Your task to perform on an android device: toggle notifications settings in the gmail app Image 0: 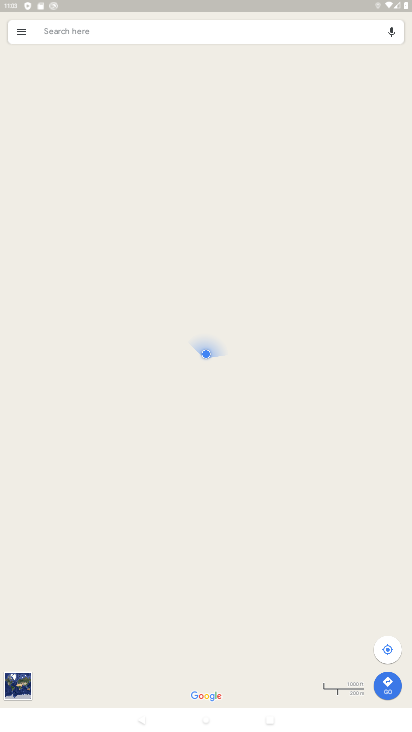
Step 0: press home button
Your task to perform on an android device: toggle notifications settings in the gmail app Image 1: 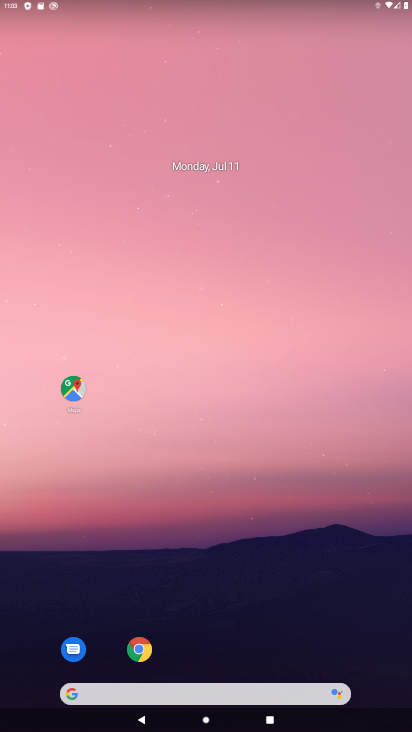
Step 1: drag from (303, 620) to (232, 133)
Your task to perform on an android device: toggle notifications settings in the gmail app Image 2: 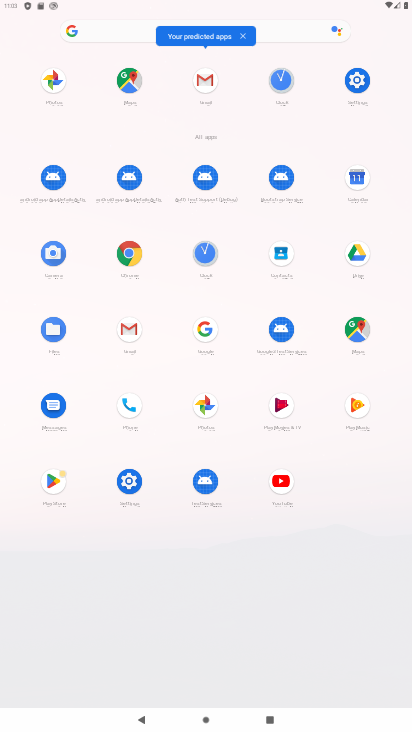
Step 2: click (204, 86)
Your task to perform on an android device: toggle notifications settings in the gmail app Image 3: 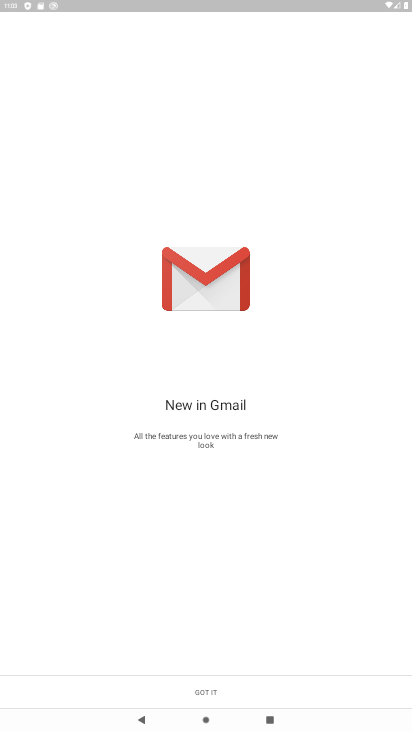
Step 3: click (219, 687)
Your task to perform on an android device: toggle notifications settings in the gmail app Image 4: 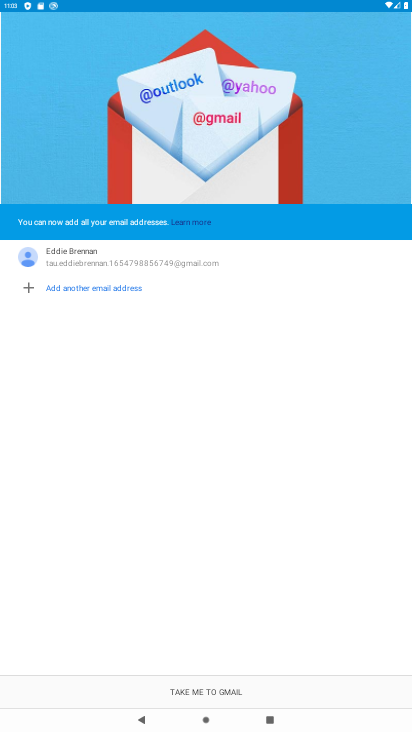
Step 4: click (236, 690)
Your task to perform on an android device: toggle notifications settings in the gmail app Image 5: 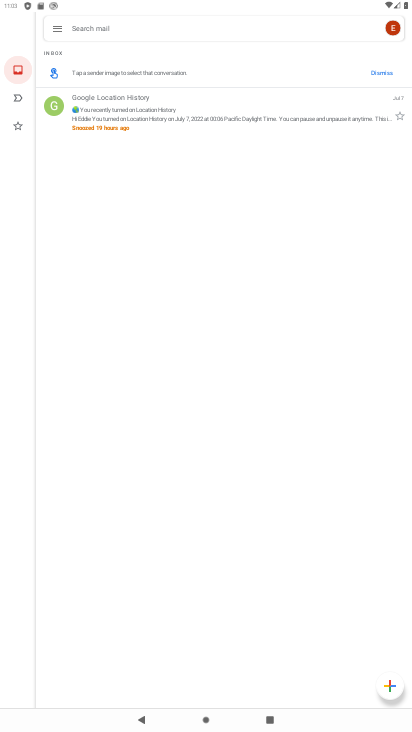
Step 5: click (59, 30)
Your task to perform on an android device: toggle notifications settings in the gmail app Image 6: 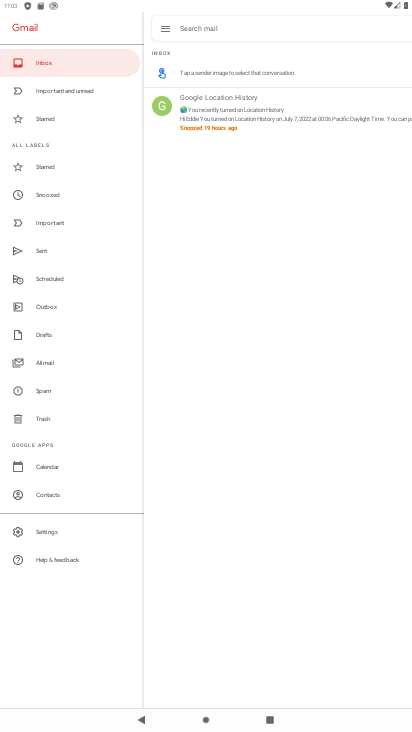
Step 6: drag from (49, 417) to (62, 569)
Your task to perform on an android device: toggle notifications settings in the gmail app Image 7: 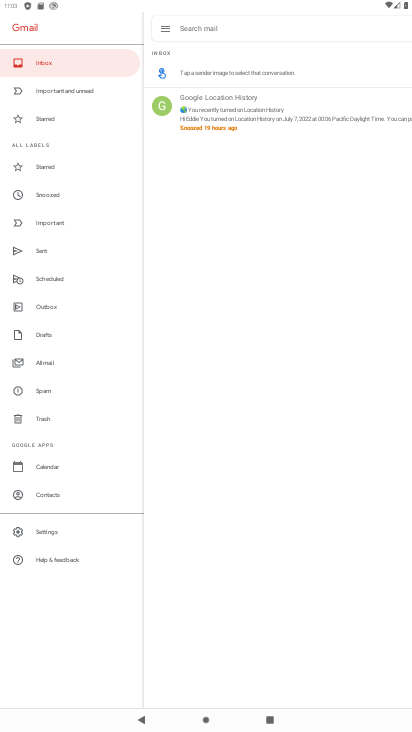
Step 7: click (54, 534)
Your task to perform on an android device: toggle notifications settings in the gmail app Image 8: 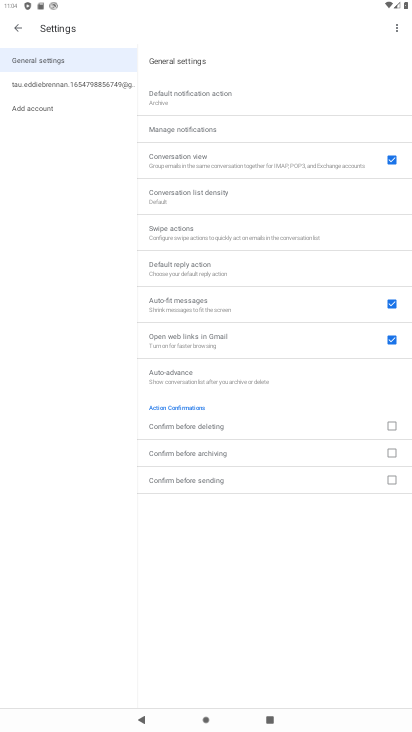
Step 8: drag from (152, 244) to (156, 356)
Your task to perform on an android device: toggle notifications settings in the gmail app Image 9: 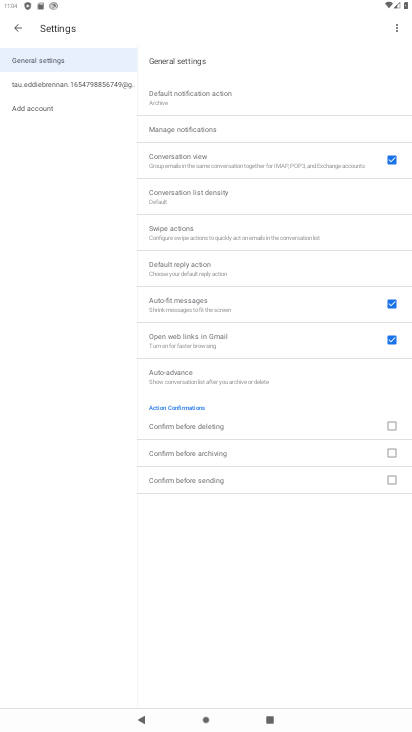
Step 9: click (293, 114)
Your task to perform on an android device: toggle notifications settings in the gmail app Image 10: 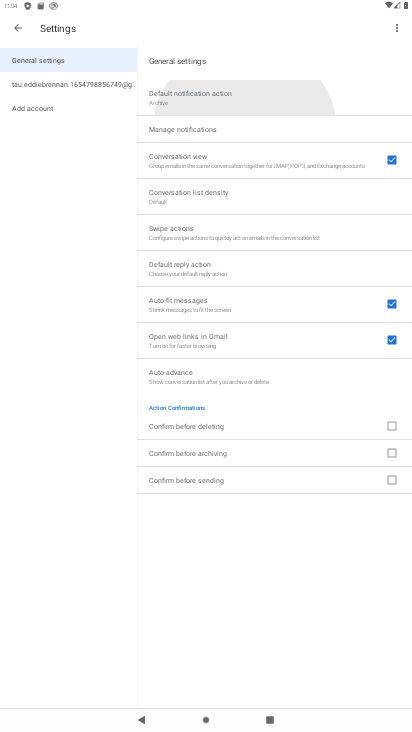
Step 10: click (77, 88)
Your task to perform on an android device: toggle notifications settings in the gmail app Image 11: 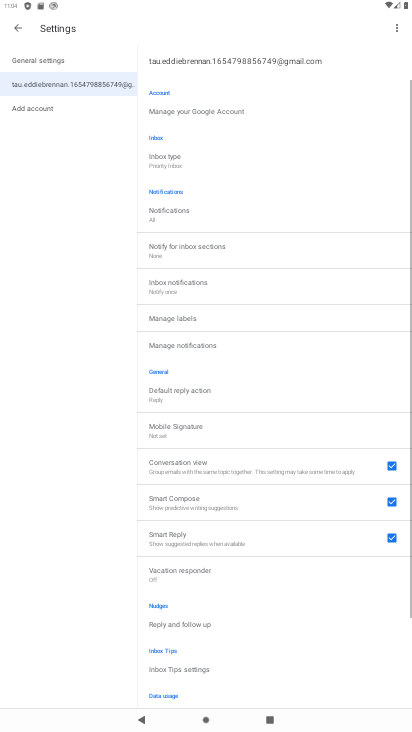
Step 11: drag from (77, 88) to (83, 205)
Your task to perform on an android device: toggle notifications settings in the gmail app Image 12: 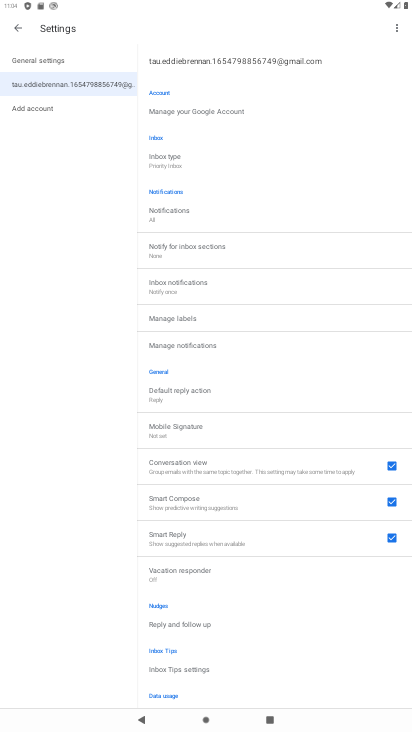
Step 12: click (192, 338)
Your task to perform on an android device: toggle notifications settings in the gmail app Image 13: 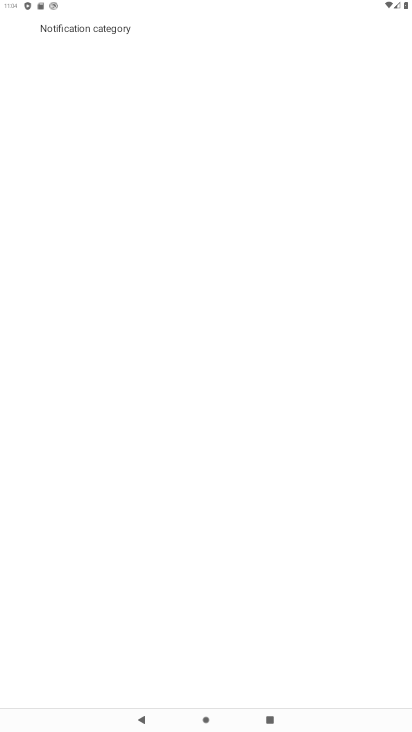
Step 13: drag from (47, 394) to (196, 302)
Your task to perform on an android device: toggle notifications settings in the gmail app Image 14: 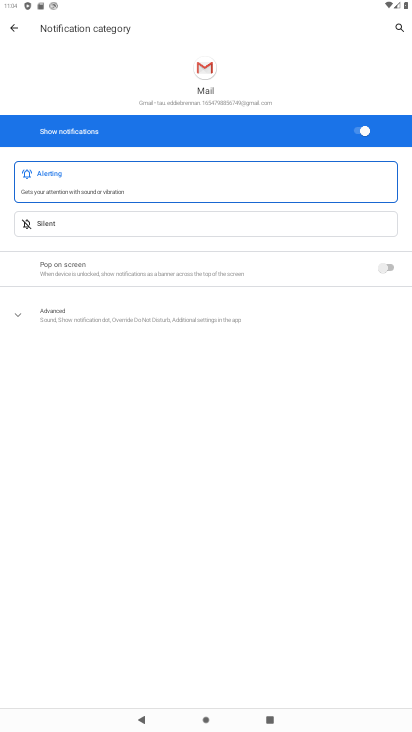
Step 14: click (387, 266)
Your task to perform on an android device: toggle notifications settings in the gmail app Image 15: 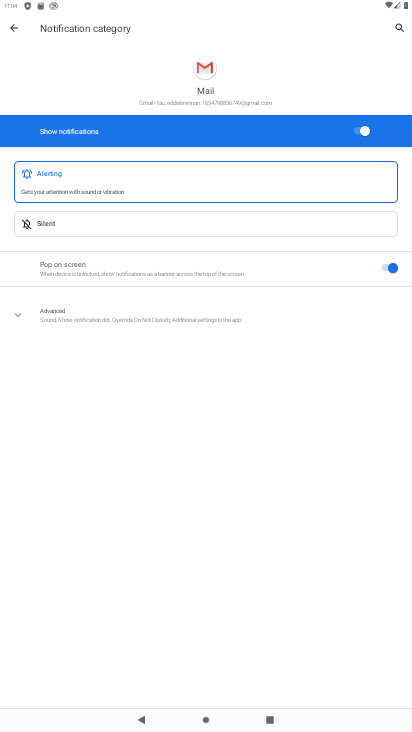
Step 15: click (330, 309)
Your task to perform on an android device: toggle notifications settings in the gmail app Image 16: 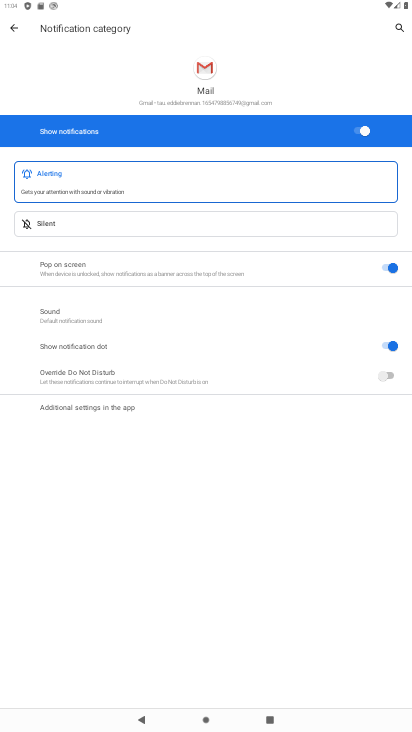
Step 16: click (389, 376)
Your task to perform on an android device: toggle notifications settings in the gmail app Image 17: 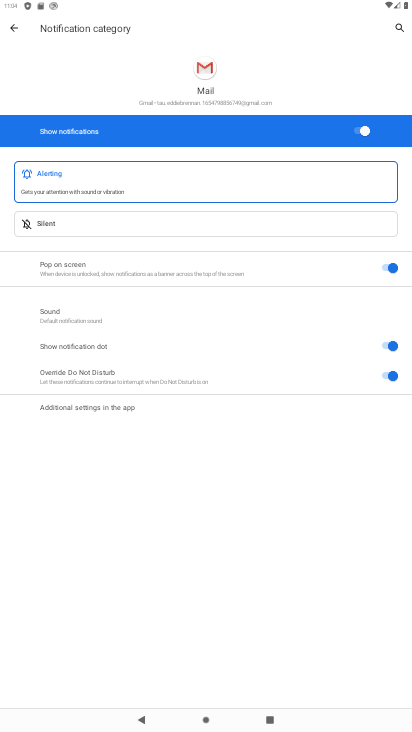
Step 17: click (386, 345)
Your task to perform on an android device: toggle notifications settings in the gmail app Image 18: 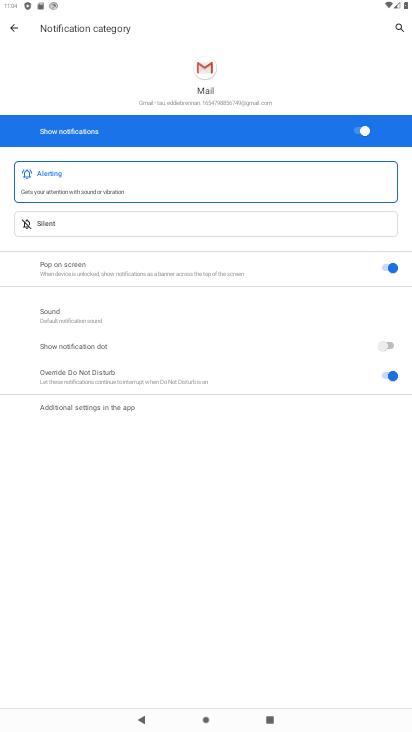
Step 18: task complete